Your task to perform on an android device: Search for sushi restaurants on Maps Image 0: 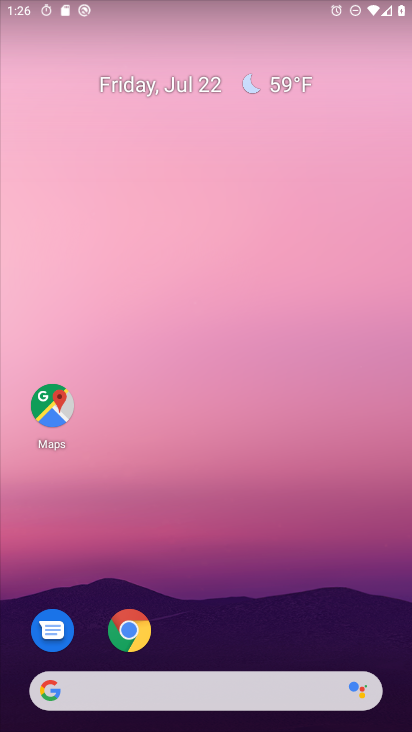
Step 0: press home button
Your task to perform on an android device: Search for sushi restaurants on Maps Image 1: 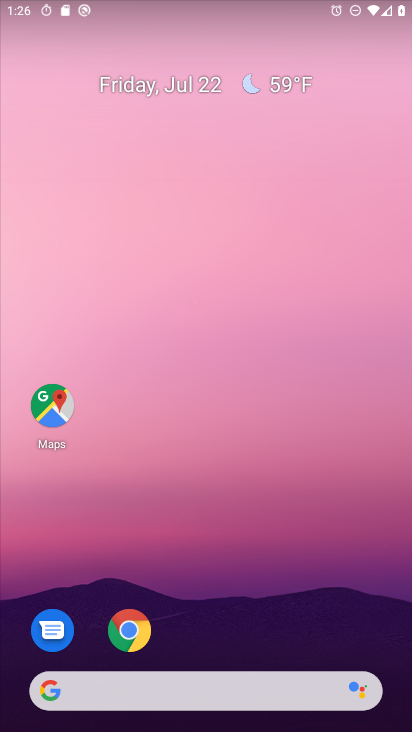
Step 1: drag from (233, 655) to (136, 0)
Your task to perform on an android device: Search for sushi restaurants on Maps Image 2: 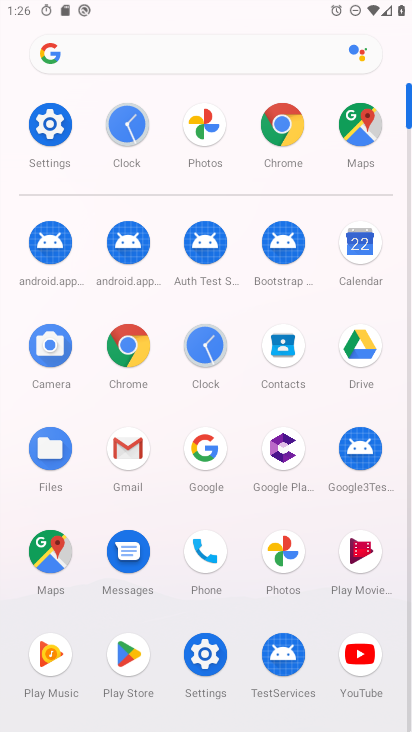
Step 2: click (360, 124)
Your task to perform on an android device: Search for sushi restaurants on Maps Image 3: 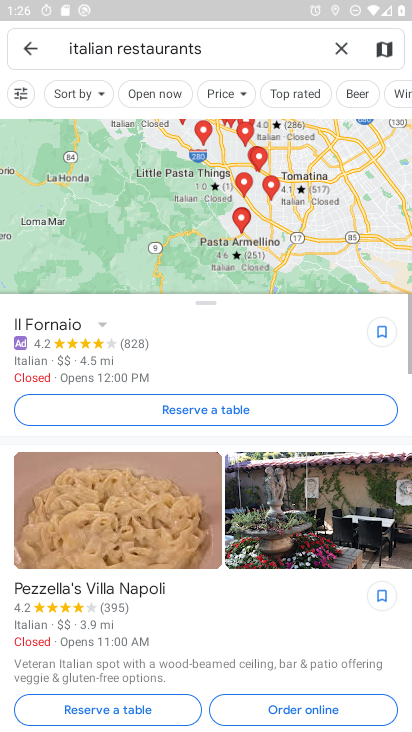
Step 3: click (342, 52)
Your task to perform on an android device: Search for sushi restaurants on Maps Image 4: 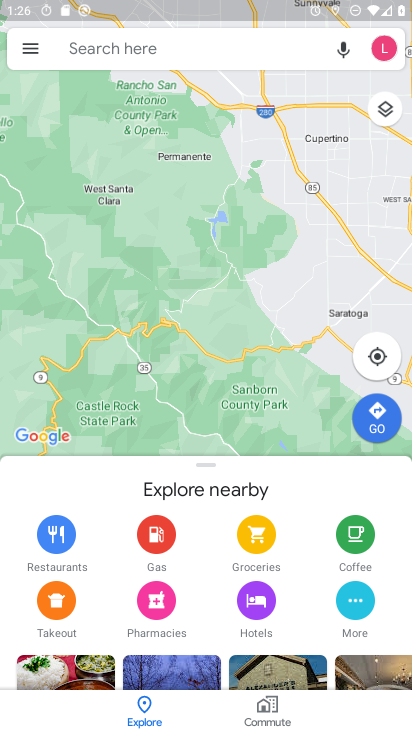
Step 4: click (96, 46)
Your task to perform on an android device: Search for sushi restaurants on Maps Image 5: 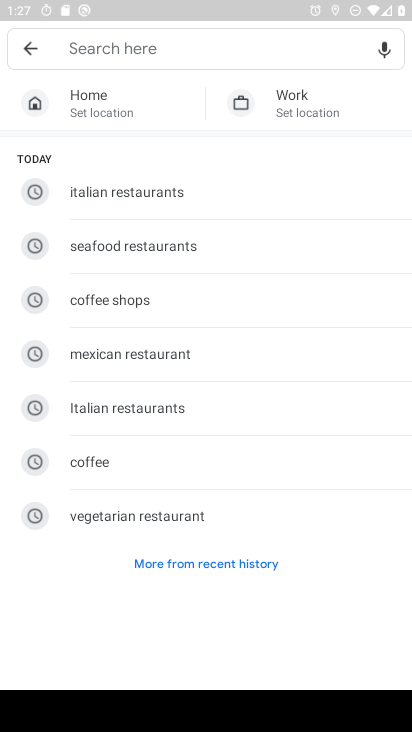
Step 5: type "sushi restaurants"
Your task to perform on an android device: Search for sushi restaurants on Maps Image 6: 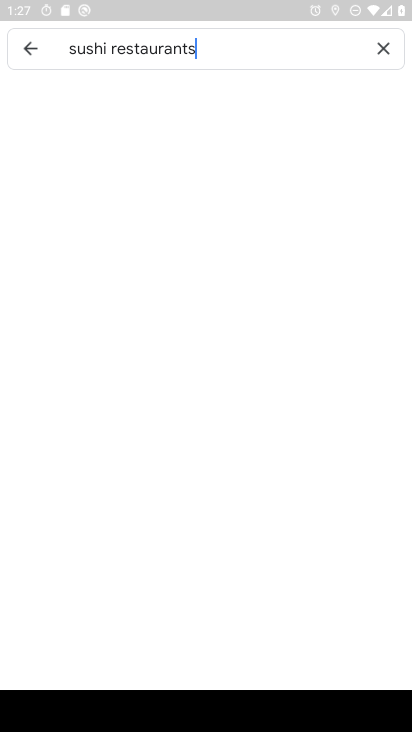
Step 6: press enter
Your task to perform on an android device: Search for sushi restaurants on Maps Image 7: 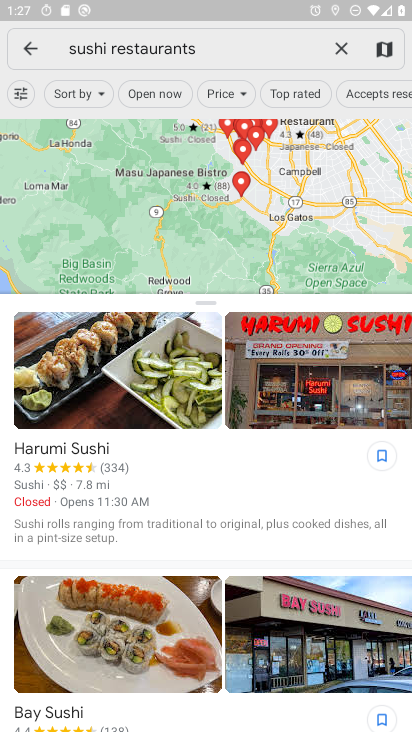
Step 7: task complete